Your task to perform on an android device: Show me productivity apps on the Play Store Image 0: 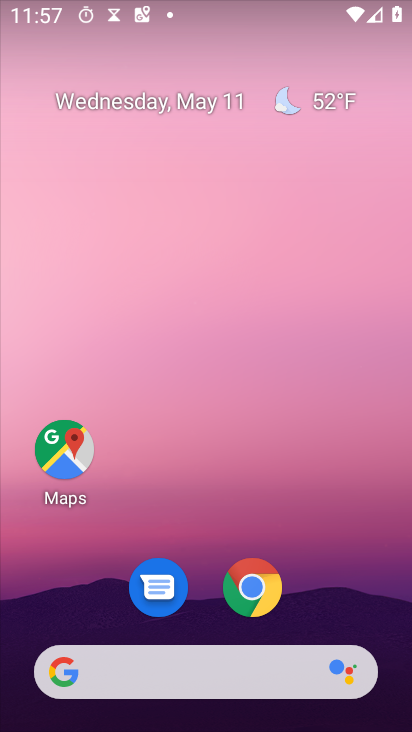
Step 0: drag from (203, 680) to (349, 266)
Your task to perform on an android device: Show me productivity apps on the Play Store Image 1: 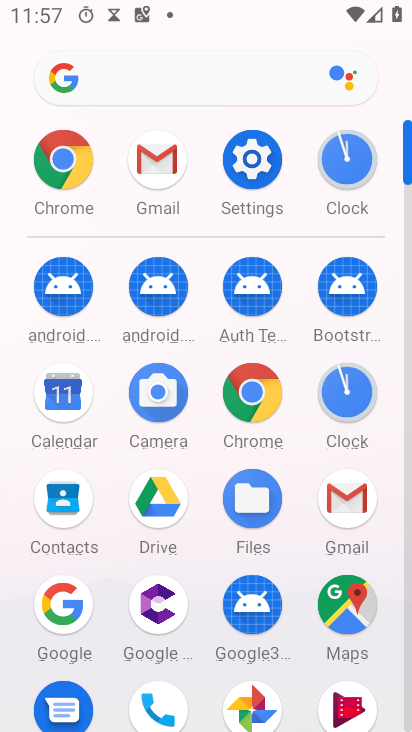
Step 1: drag from (112, 553) to (175, 409)
Your task to perform on an android device: Show me productivity apps on the Play Store Image 2: 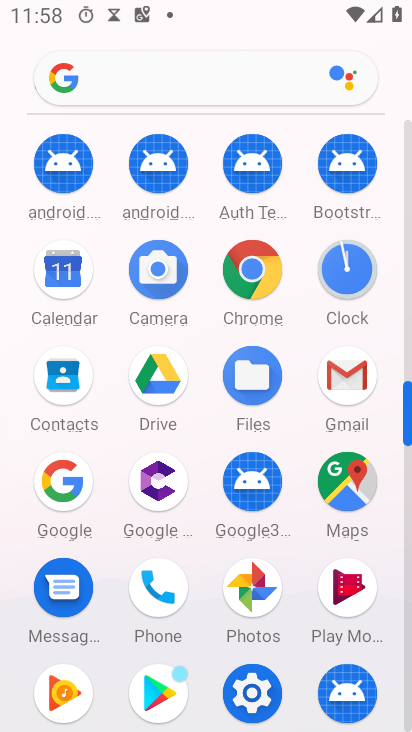
Step 2: click (173, 670)
Your task to perform on an android device: Show me productivity apps on the Play Store Image 3: 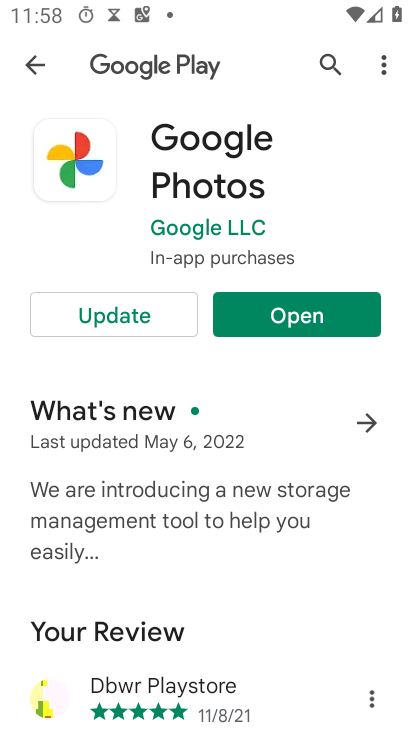
Step 3: click (320, 66)
Your task to perform on an android device: Show me productivity apps on the Play Store Image 4: 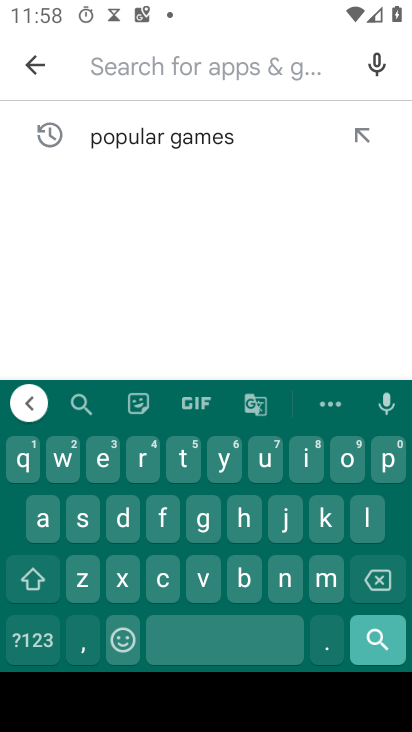
Step 4: click (384, 458)
Your task to perform on an android device: Show me productivity apps on the Play Store Image 5: 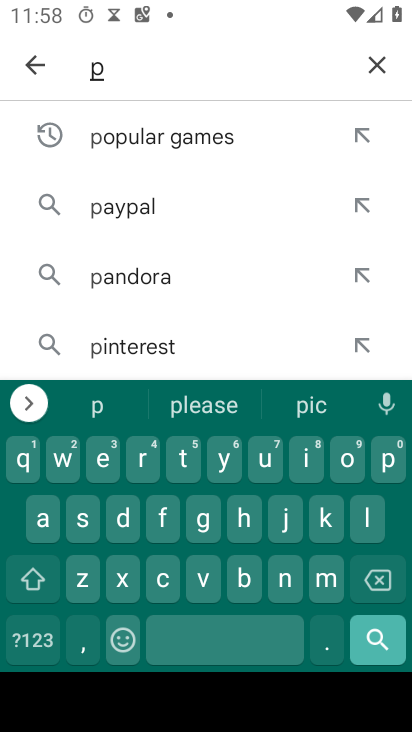
Step 5: click (152, 457)
Your task to perform on an android device: Show me productivity apps on the Play Store Image 6: 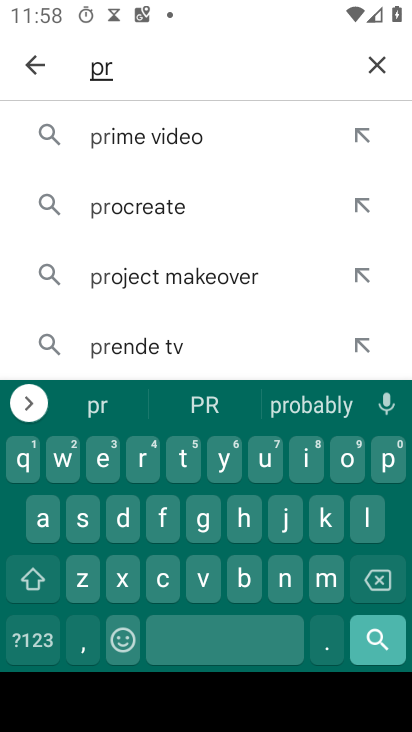
Step 6: click (347, 470)
Your task to perform on an android device: Show me productivity apps on the Play Store Image 7: 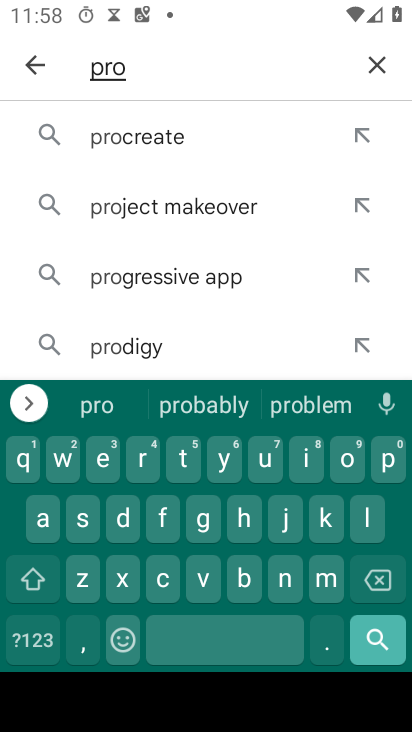
Step 7: click (114, 525)
Your task to perform on an android device: Show me productivity apps on the Play Store Image 8: 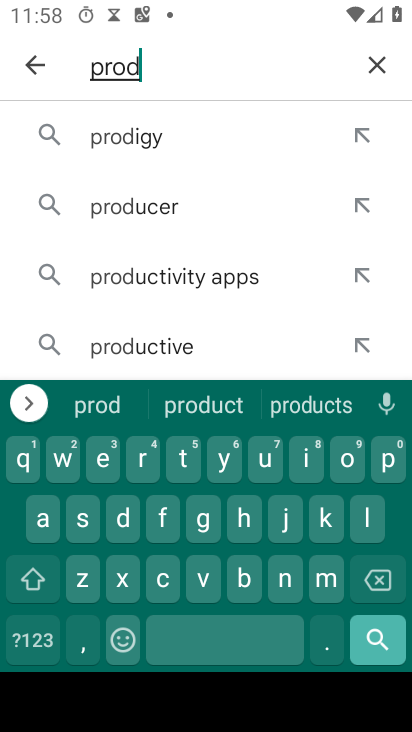
Step 8: click (171, 273)
Your task to perform on an android device: Show me productivity apps on the Play Store Image 9: 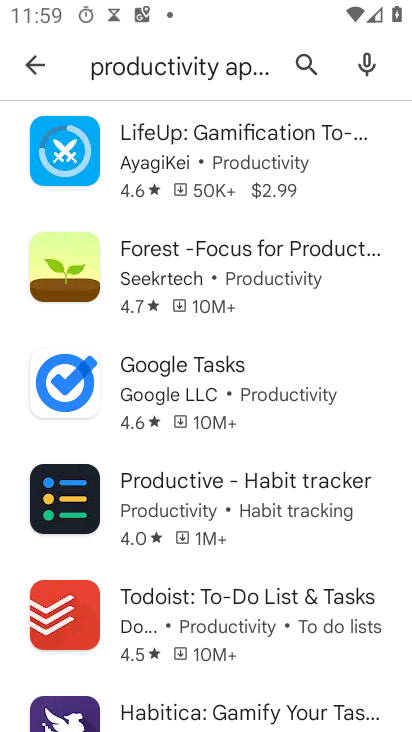
Step 9: task complete